Your task to perform on an android device: See recent photos Image 0: 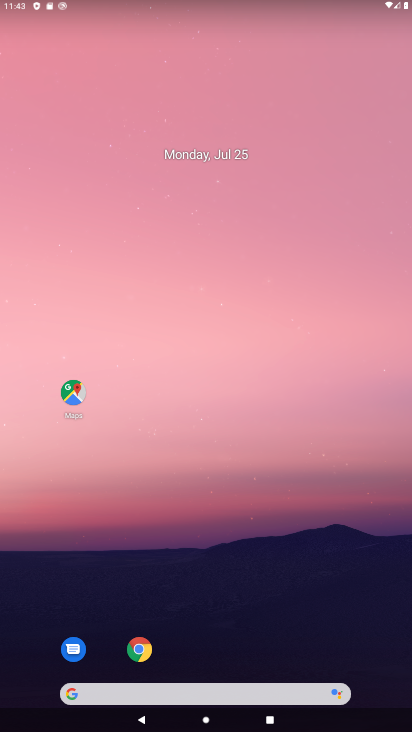
Step 0: drag from (200, 659) to (224, 5)
Your task to perform on an android device: See recent photos Image 1: 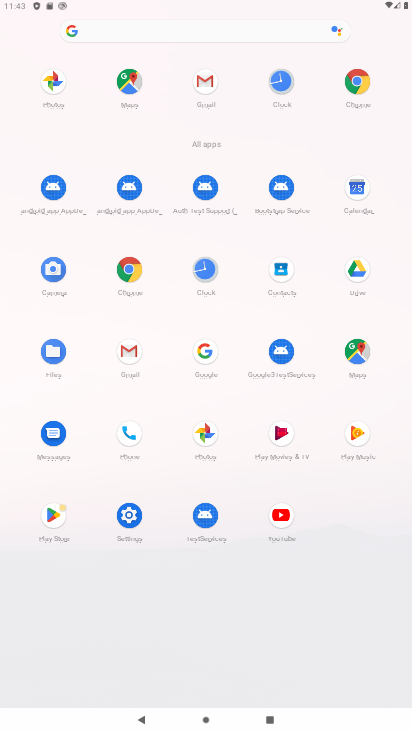
Step 1: click (206, 431)
Your task to perform on an android device: See recent photos Image 2: 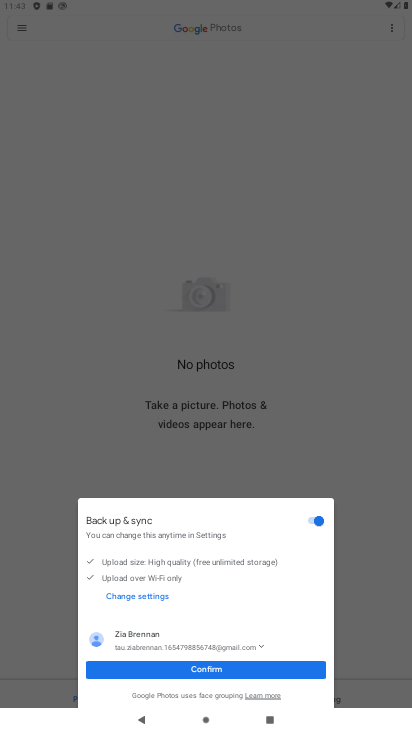
Step 2: click (205, 667)
Your task to perform on an android device: See recent photos Image 3: 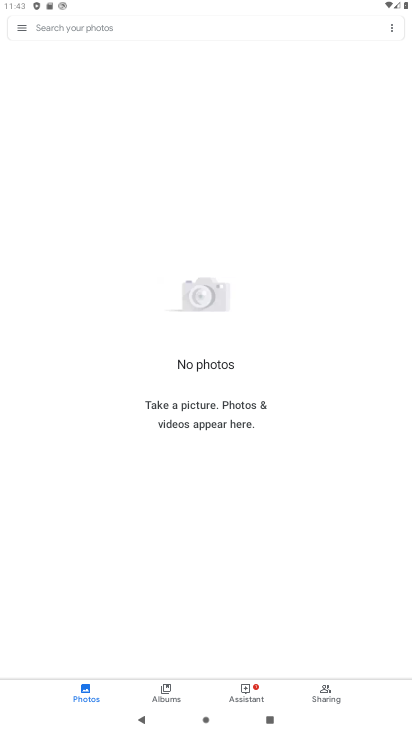
Step 3: task complete